Your task to perform on an android device: Show me recent news Image 0: 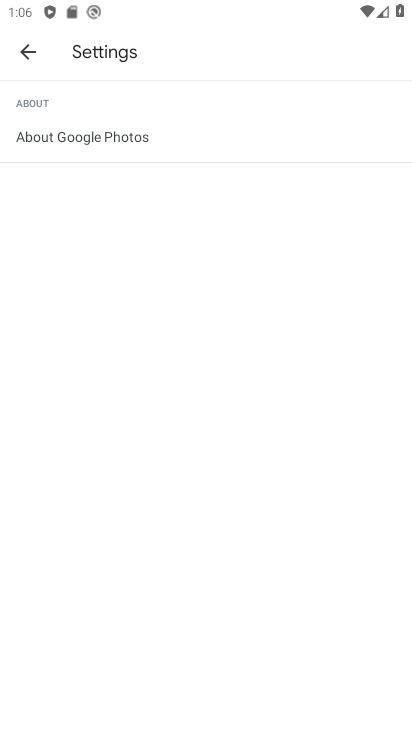
Step 0: press home button
Your task to perform on an android device: Show me recent news Image 1: 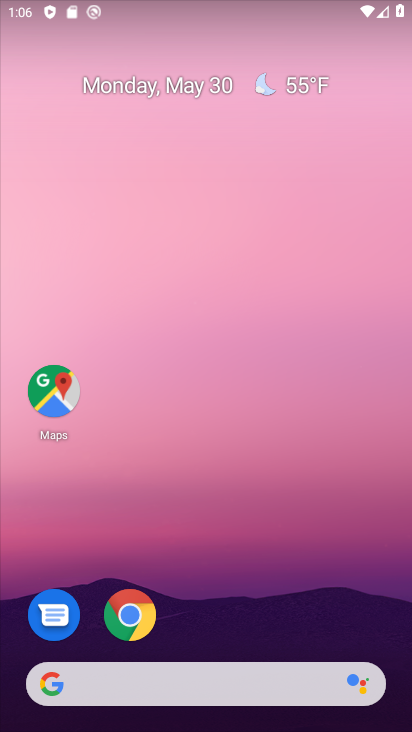
Step 1: task complete